Your task to perform on an android device: Do I have any events tomorrow? Image 0: 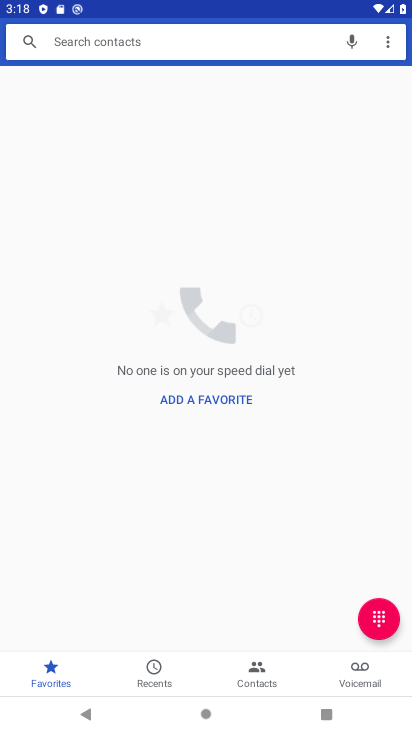
Step 0: press home button
Your task to perform on an android device: Do I have any events tomorrow? Image 1: 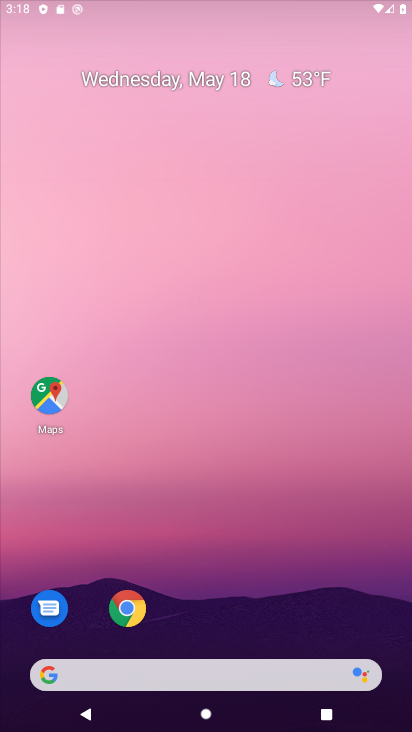
Step 1: drag from (247, 674) to (217, 69)
Your task to perform on an android device: Do I have any events tomorrow? Image 2: 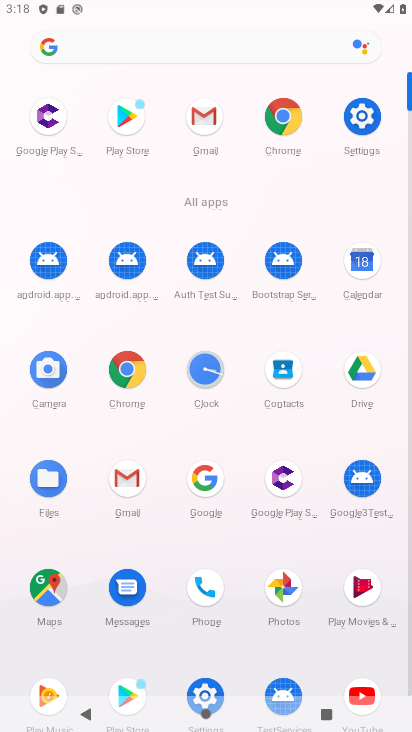
Step 2: click (359, 259)
Your task to perform on an android device: Do I have any events tomorrow? Image 3: 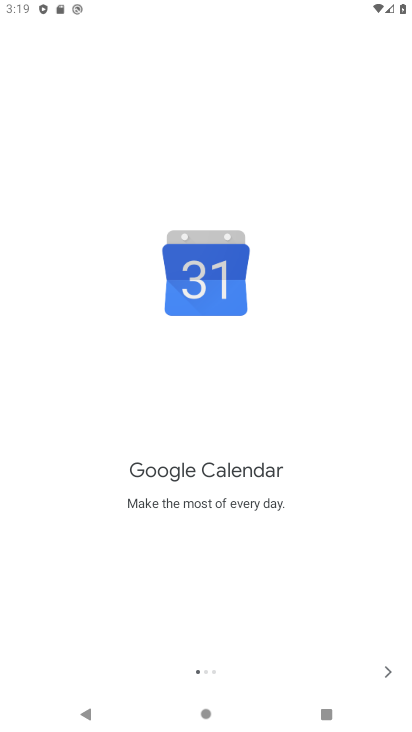
Step 3: click (385, 666)
Your task to perform on an android device: Do I have any events tomorrow? Image 4: 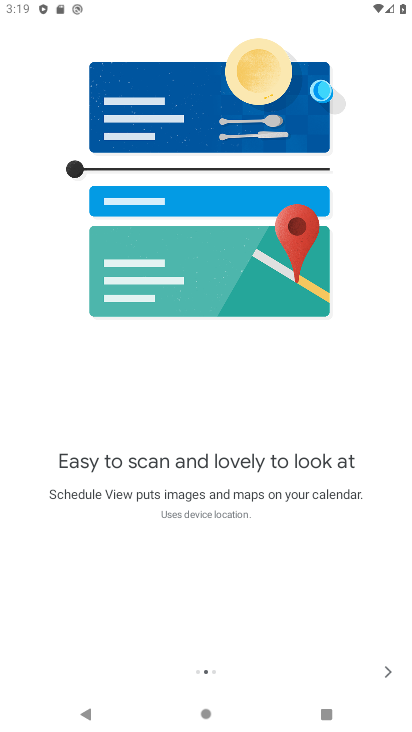
Step 4: click (385, 666)
Your task to perform on an android device: Do I have any events tomorrow? Image 5: 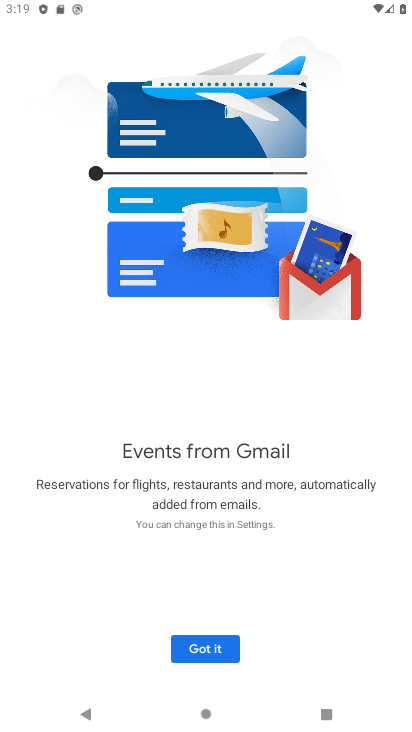
Step 5: click (385, 666)
Your task to perform on an android device: Do I have any events tomorrow? Image 6: 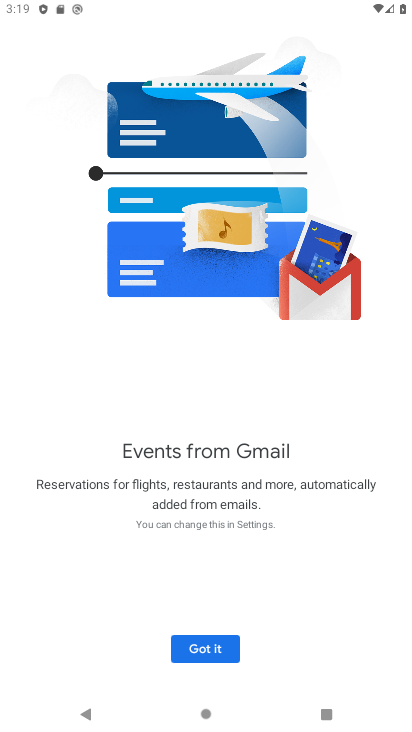
Step 6: click (208, 648)
Your task to perform on an android device: Do I have any events tomorrow? Image 7: 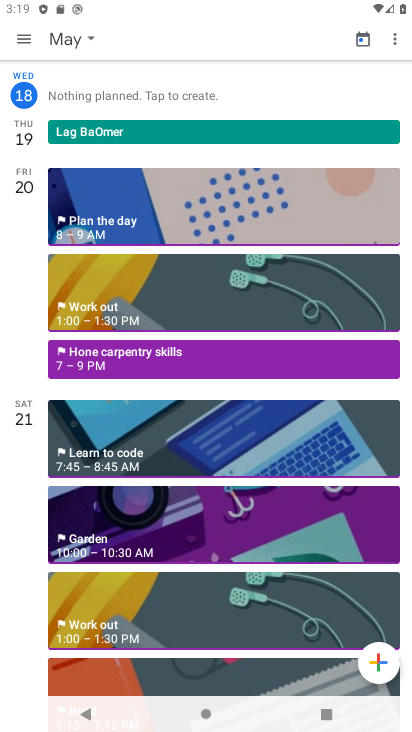
Step 7: click (87, 33)
Your task to perform on an android device: Do I have any events tomorrow? Image 8: 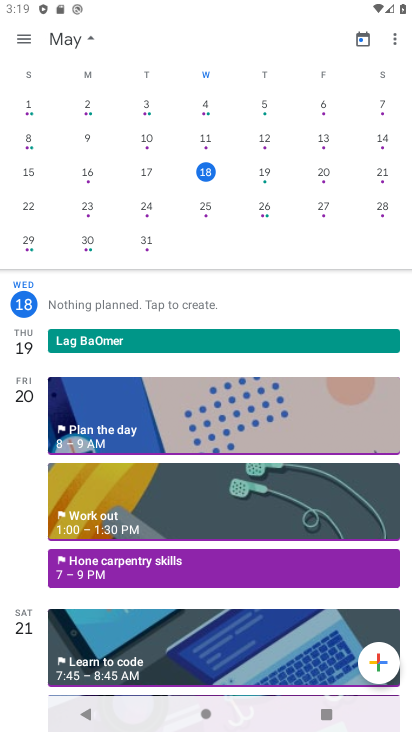
Step 8: click (259, 172)
Your task to perform on an android device: Do I have any events tomorrow? Image 9: 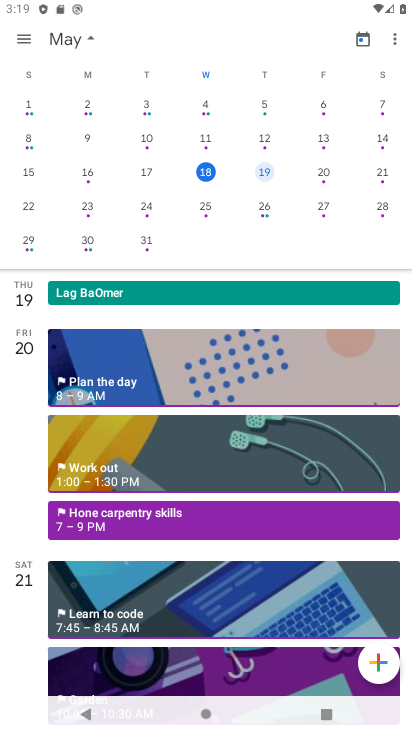
Step 9: task complete